Your task to perform on an android device: Toggle the flashlight Image 0: 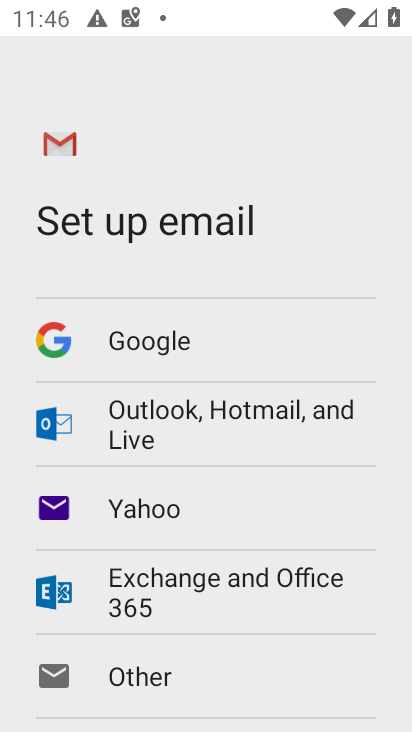
Step 0: press home button
Your task to perform on an android device: Toggle the flashlight Image 1: 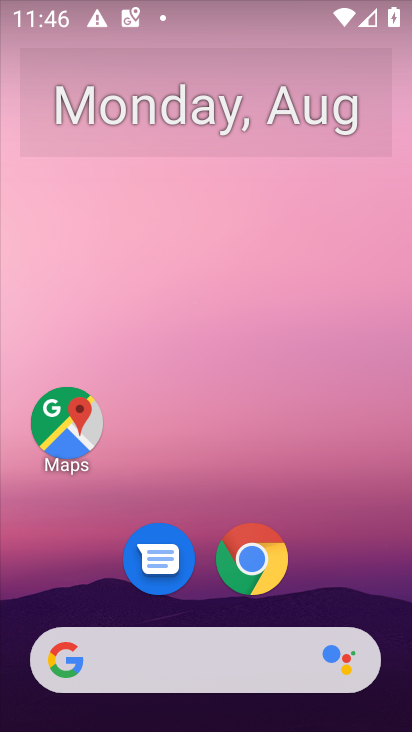
Step 1: drag from (204, 572) to (207, 14)
Your task to perform on an android device: Toggle the flashlight Image 2: 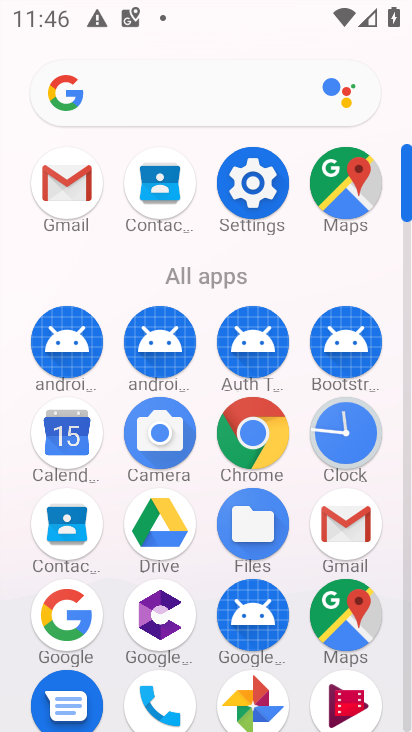
Step 2: click (255, 185)
Your task to perform on an android device: Toggle the flashlight Image 3: 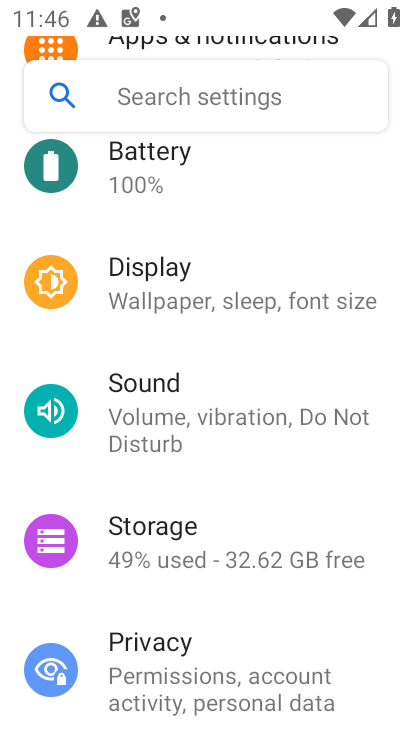
Step 3: click (230, 111)
Your task to perform on an android device: Toggle the flashlight Image 4: 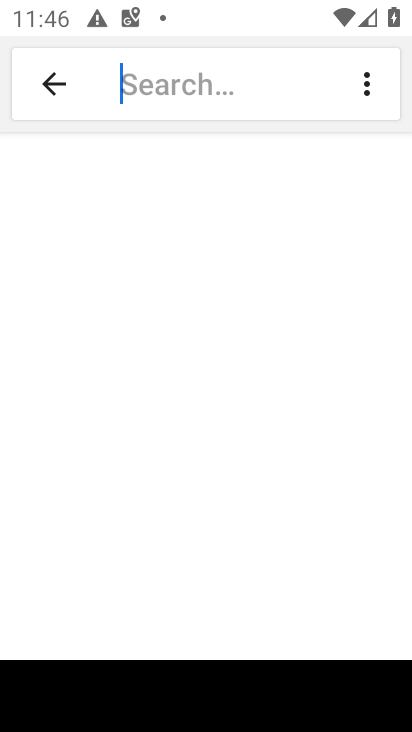
Step 4: type "flashlight"
Your task to perform on an android device: Toggle the flashlight Image 5: 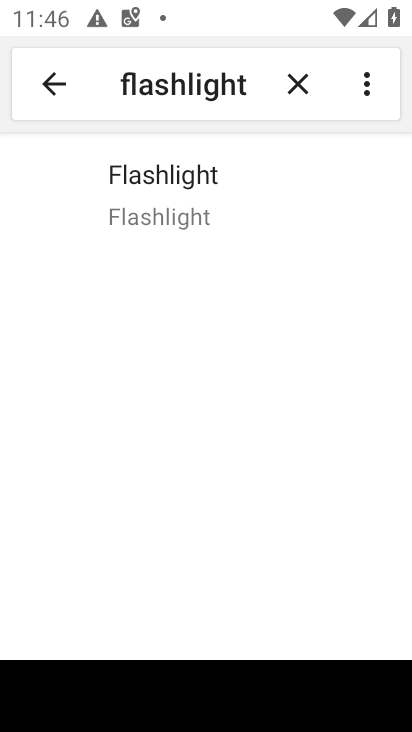
Step 5: click (159, 200)
Your task to perform on an android device: Toggle the flashlight Image 6: 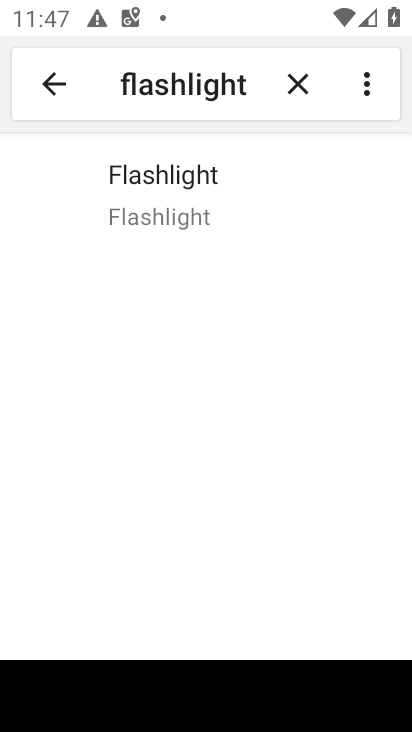
Step 6: task complete